Your task to perform on an android device: install app "Microsoft Excel" Image 0: 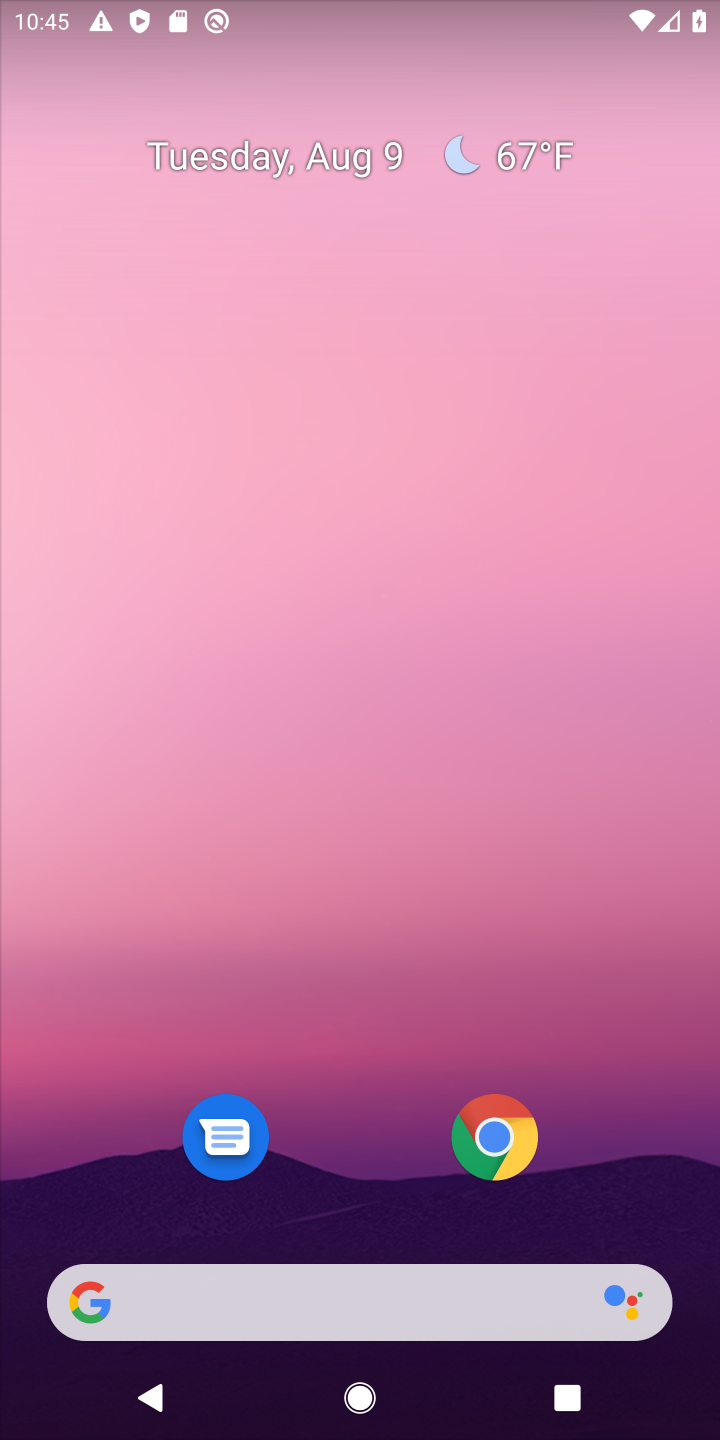
Step 0: drag from (664, 1197) to (441, 65)
Your task to perform on an android device: install app "Microsoft Excel" Image 1: 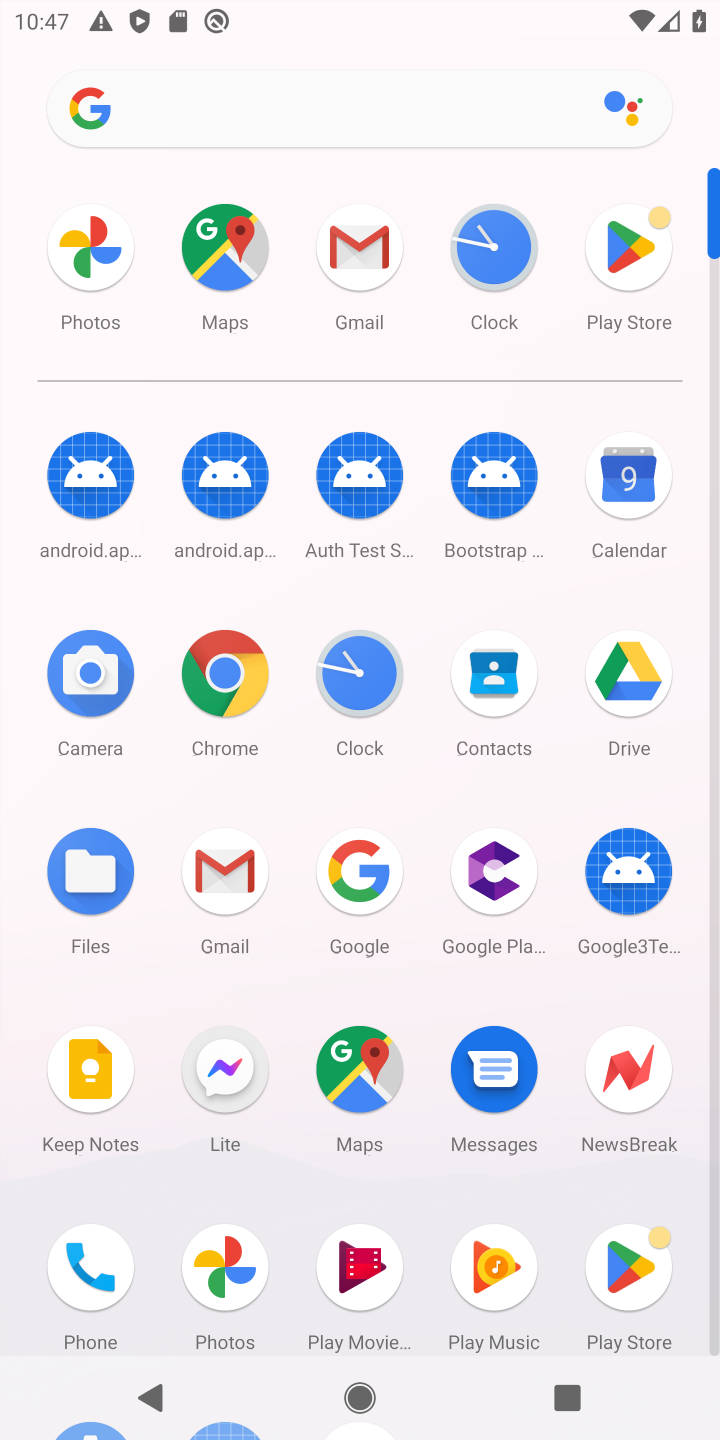
Step 1: click (604, 287)
Your task to perform on an android device: install app "Microsoft Excel" Image 2: 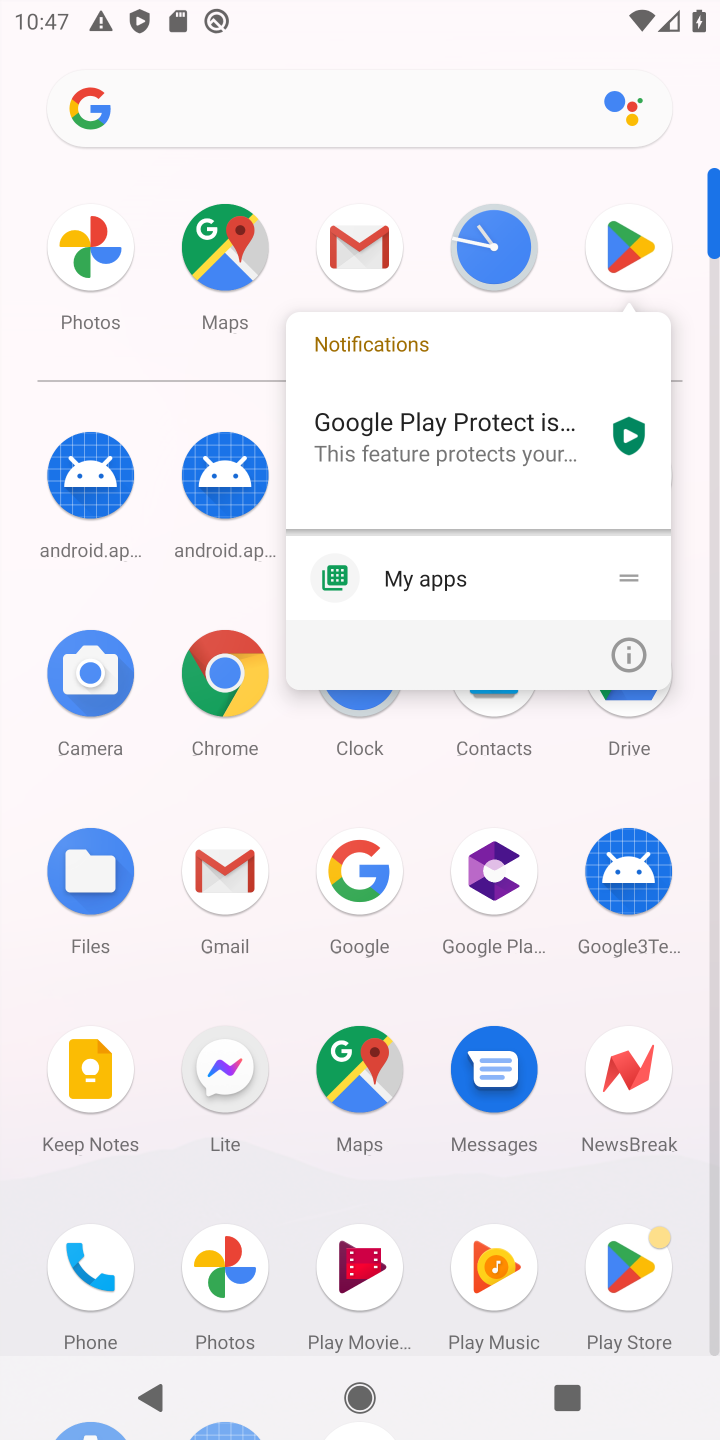
Step 2: click (643, 254)
Your task to perform on an android device: install app "Microsoft Excel" Image 3: 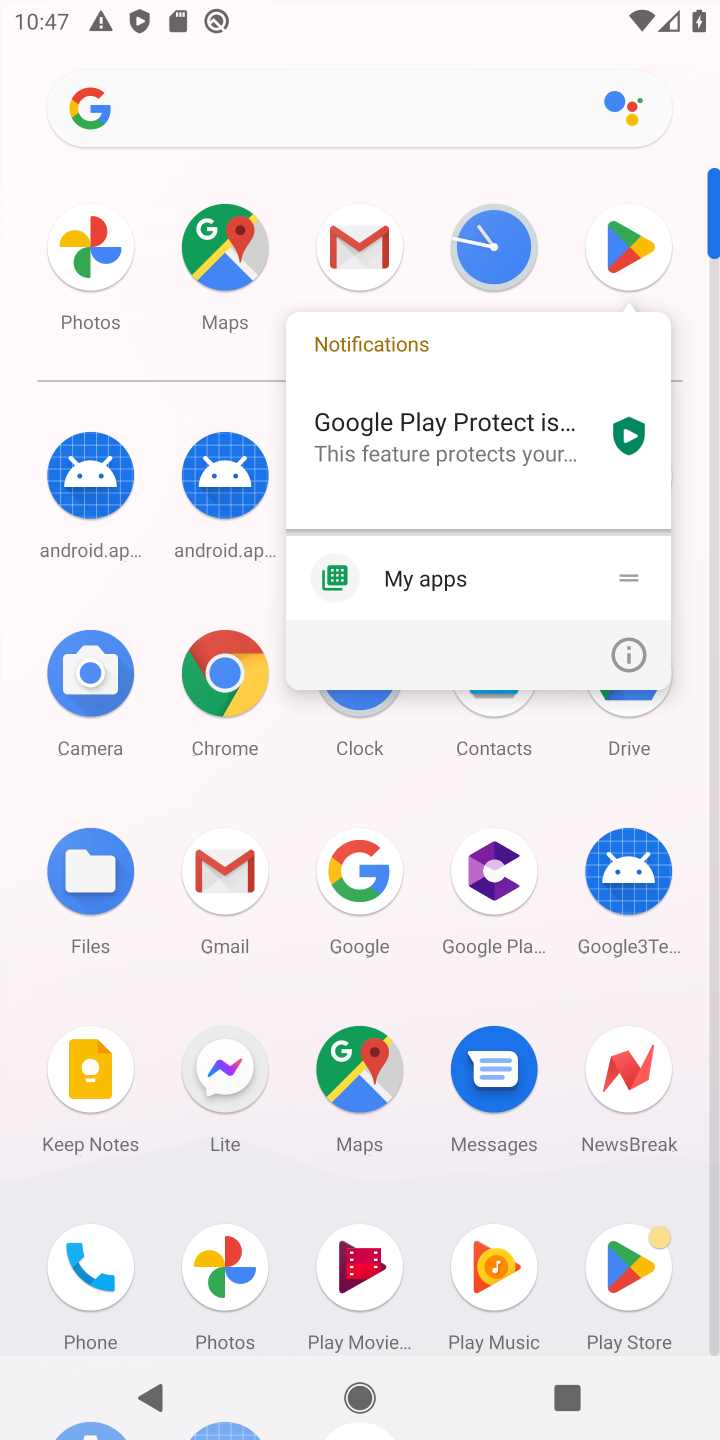
Step 3: click (643, 254)
Your task to perform on an android device: install app "Microsoft Excel" Image 4: 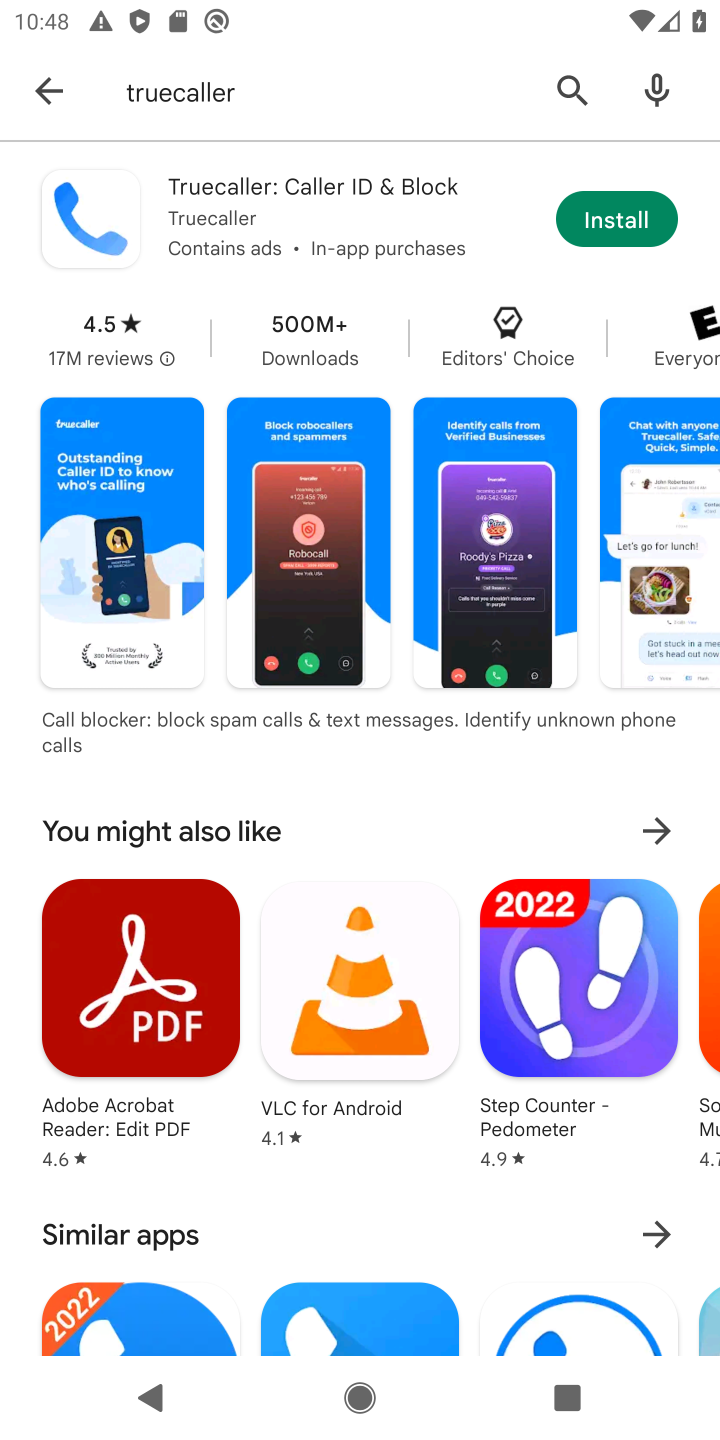
Step 4: press back button
Your task to perform on an android device: install app "Microsoft Excel" Image 5: 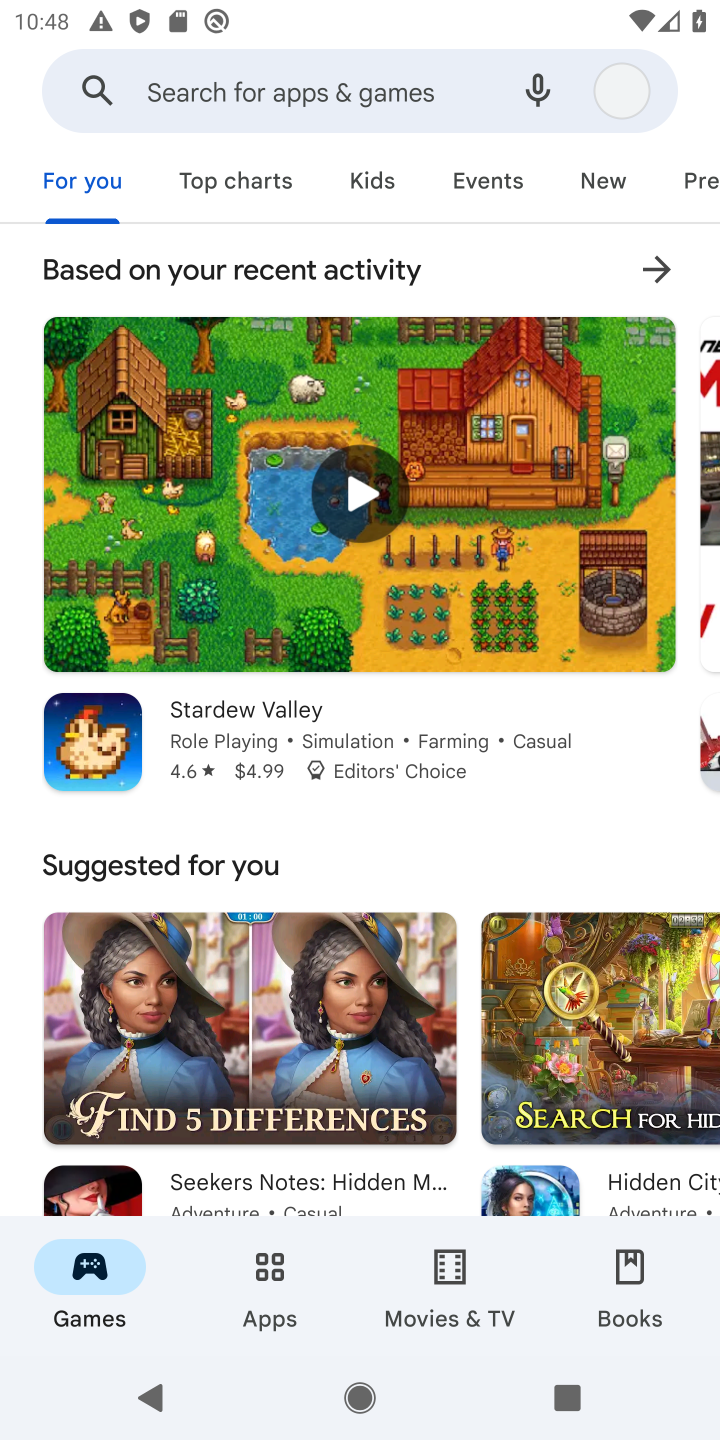
Step 5: click (253, 106)
Your task to perform on an android device: install app "Microsoft Excel" Image 6: 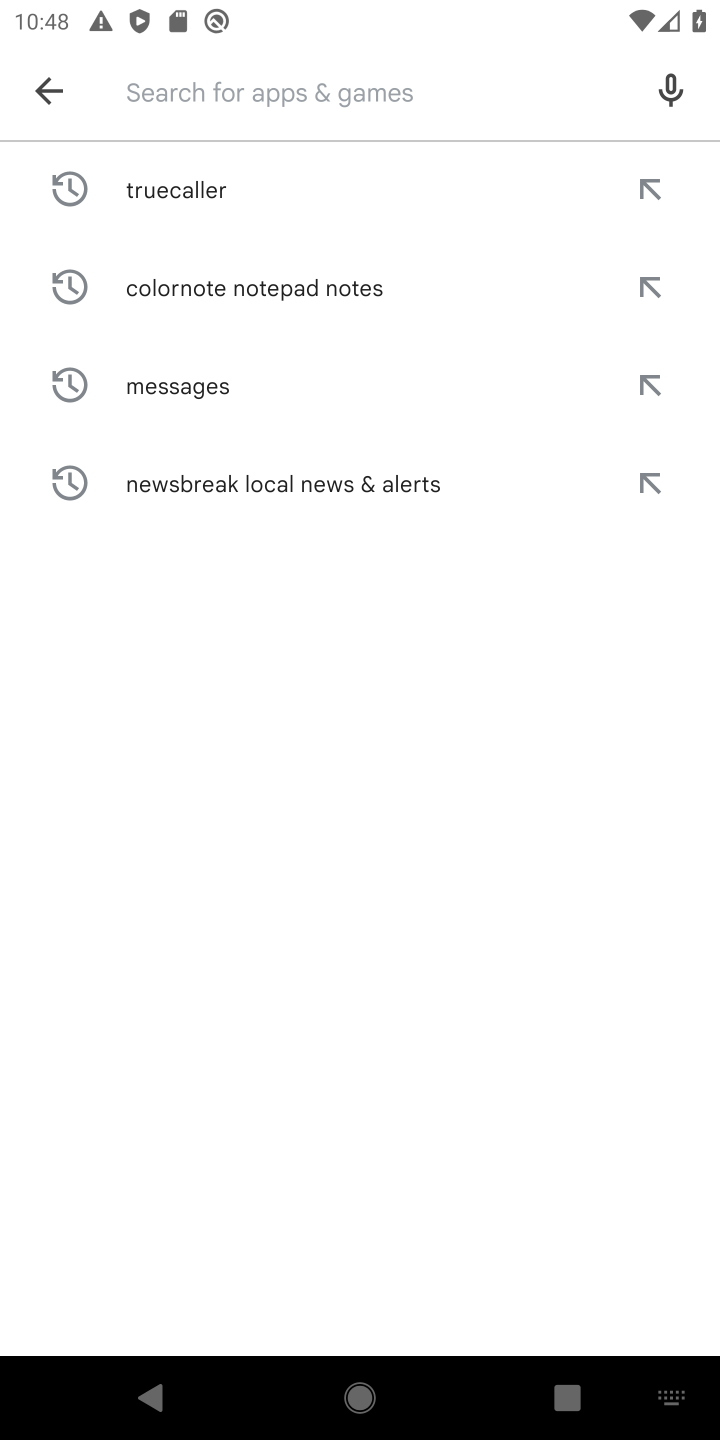
Step 6: type "Microsoft Excel"
Your task to perform on an android device: install app "Microsoft Excel" Image 7: 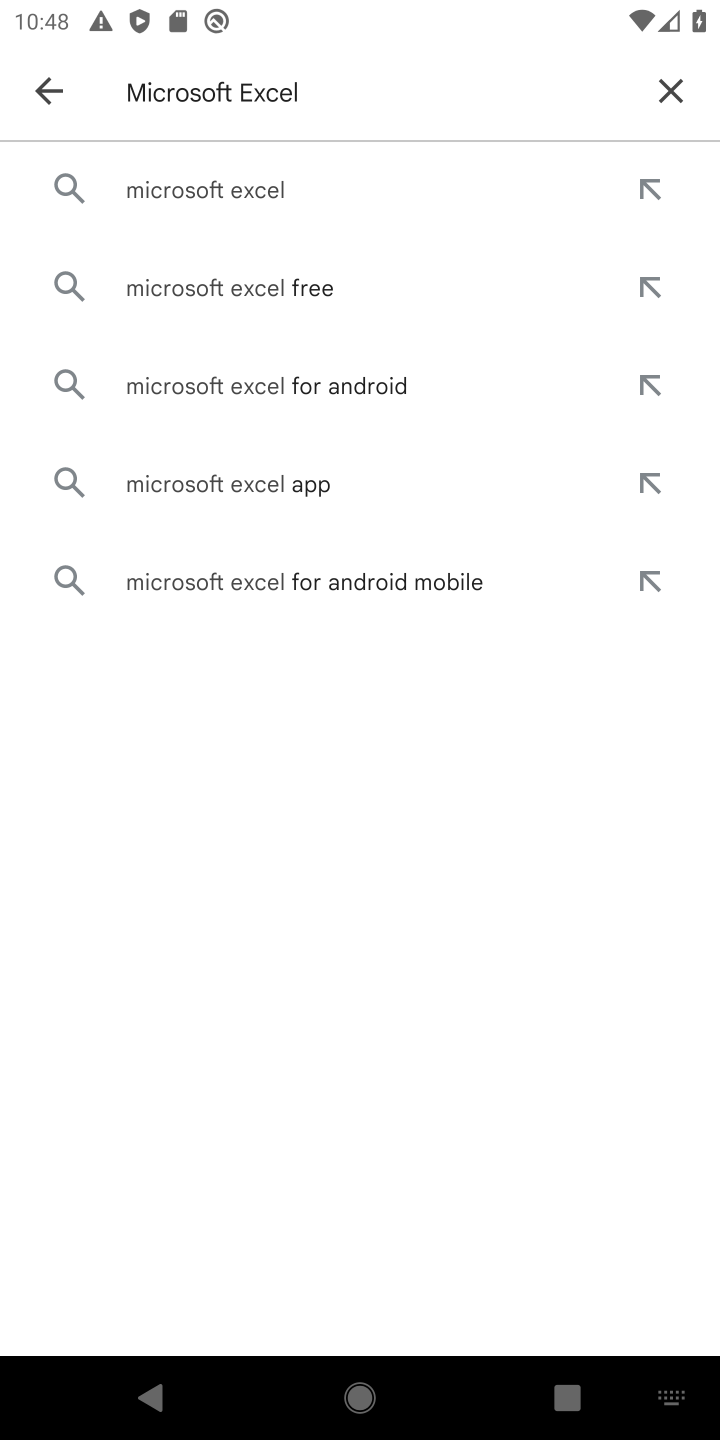
Step 7: click (287, 172)
Your task to perform on an android device: install app "Microsoft Excel" Image 8: 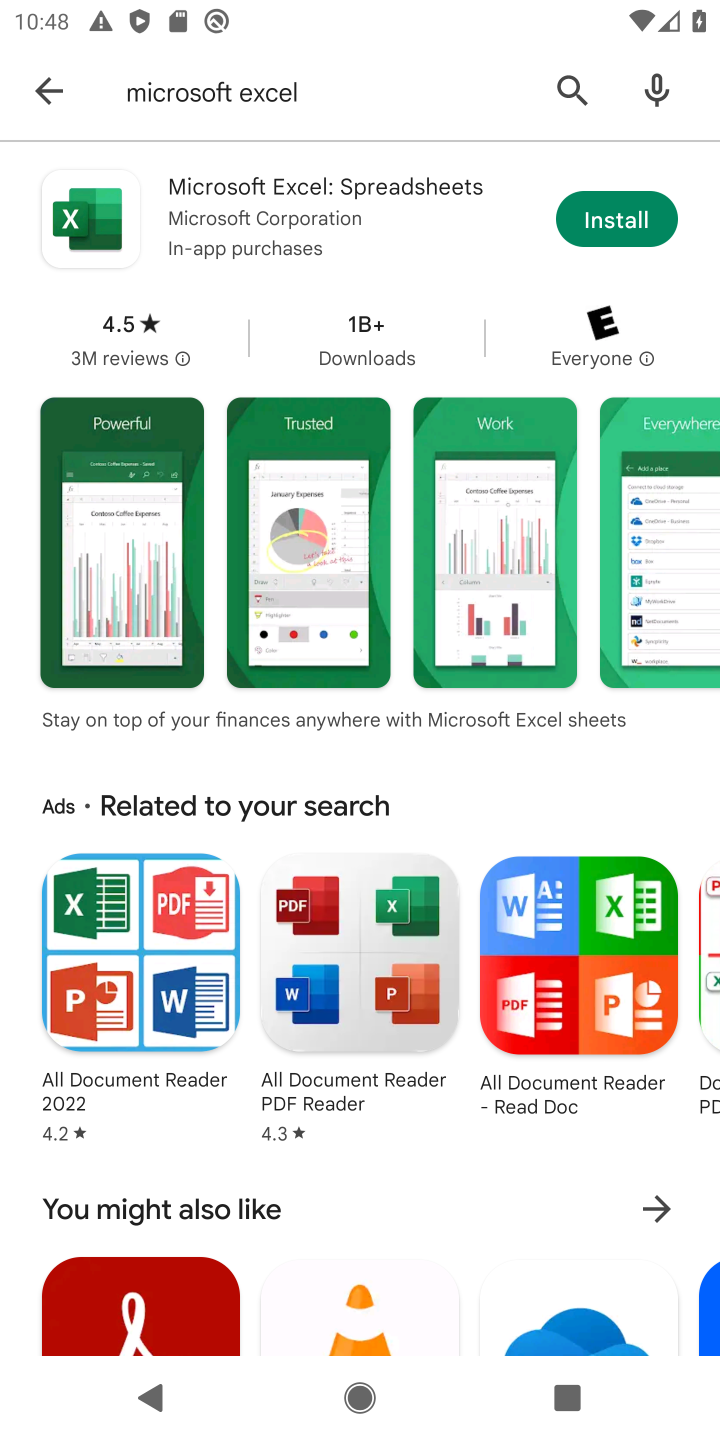
Step 8: click (618, 209)
Your task to perform on an android device: install app "Microsoft Excel" Image 9: 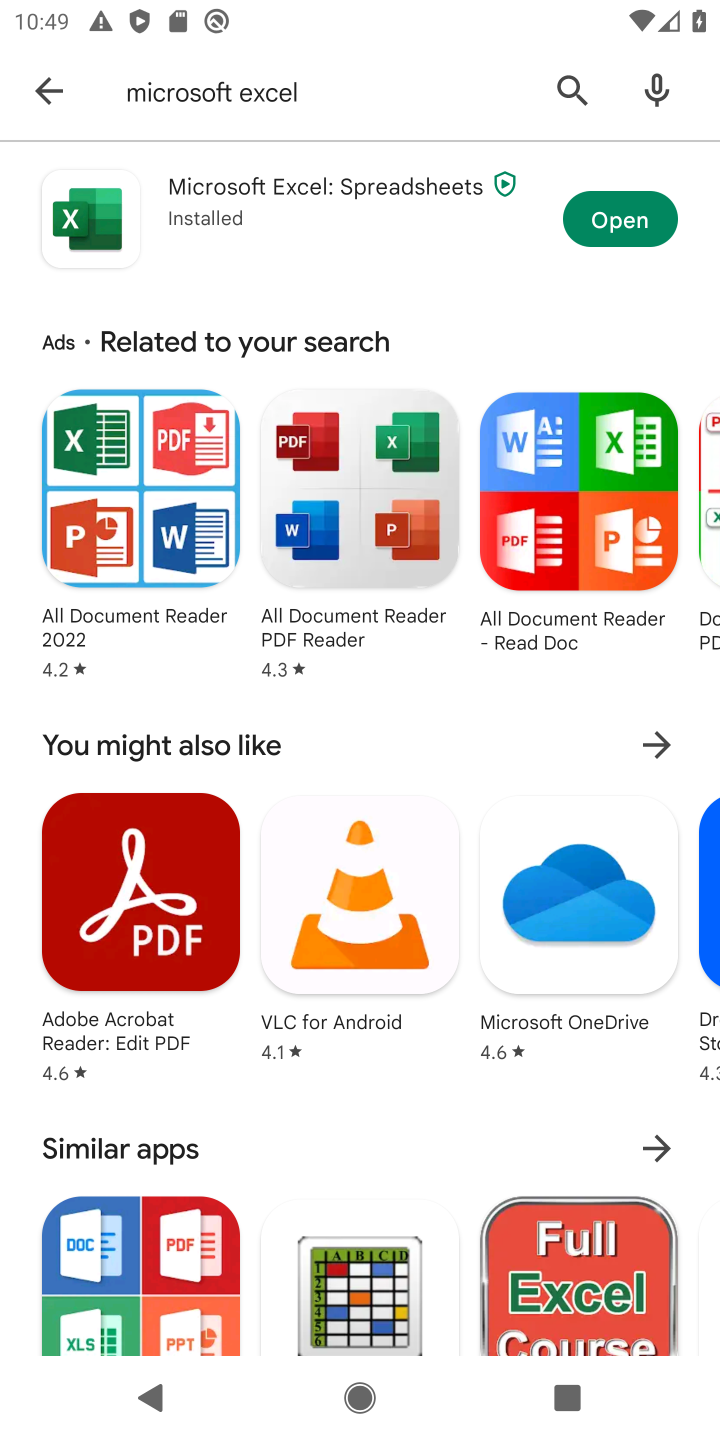
Step 9: task complete